Your task to perform on an android device: What is the recent news? Image 0: 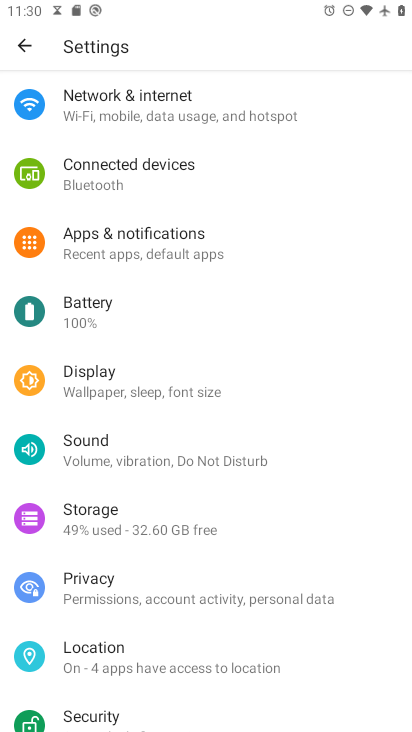
Step 0: press home button
Your task to perform on an android device: What is the recent news? Image 1: 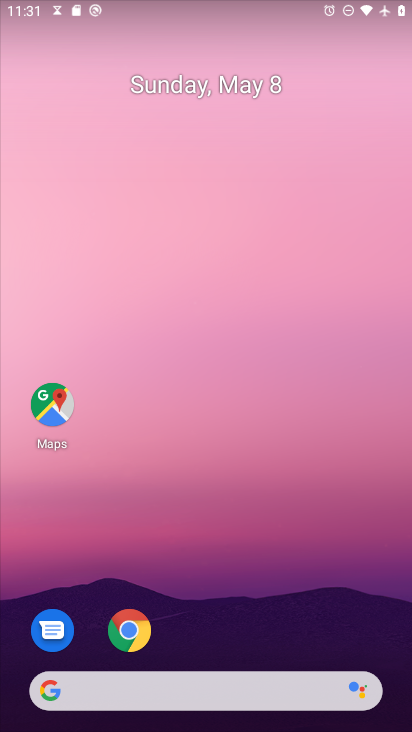
Step 1: click (55, 689)
Your task to perform on an android device: What is the recent news? Image 2: 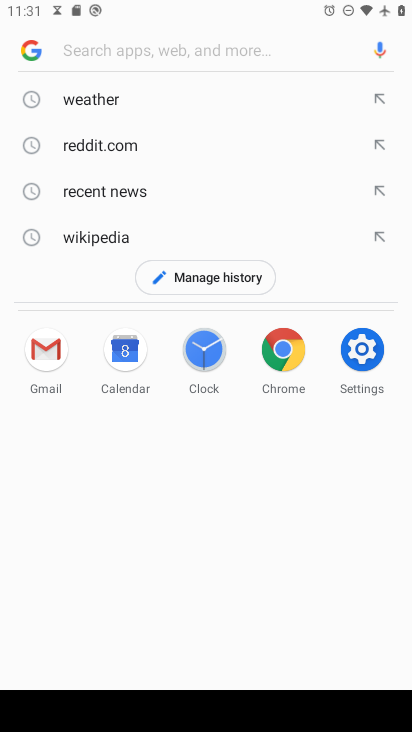
Step 2: click (125, 192)
Your task to perform on an android device: What is the recent news? Image 3: 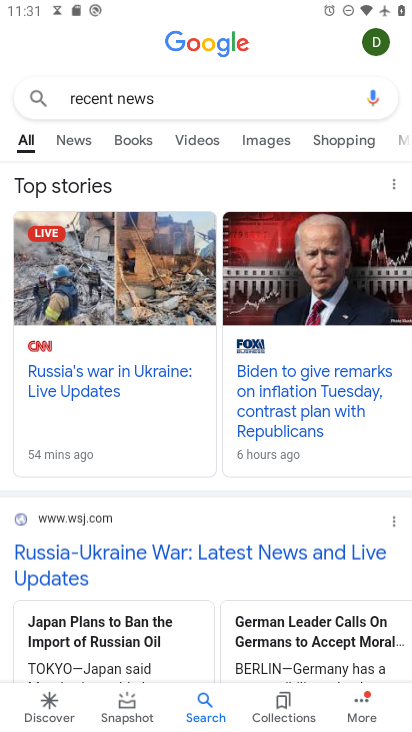
Step 3: task complete